Your task to perform on an android device: Go to accessibility settings Image 0: 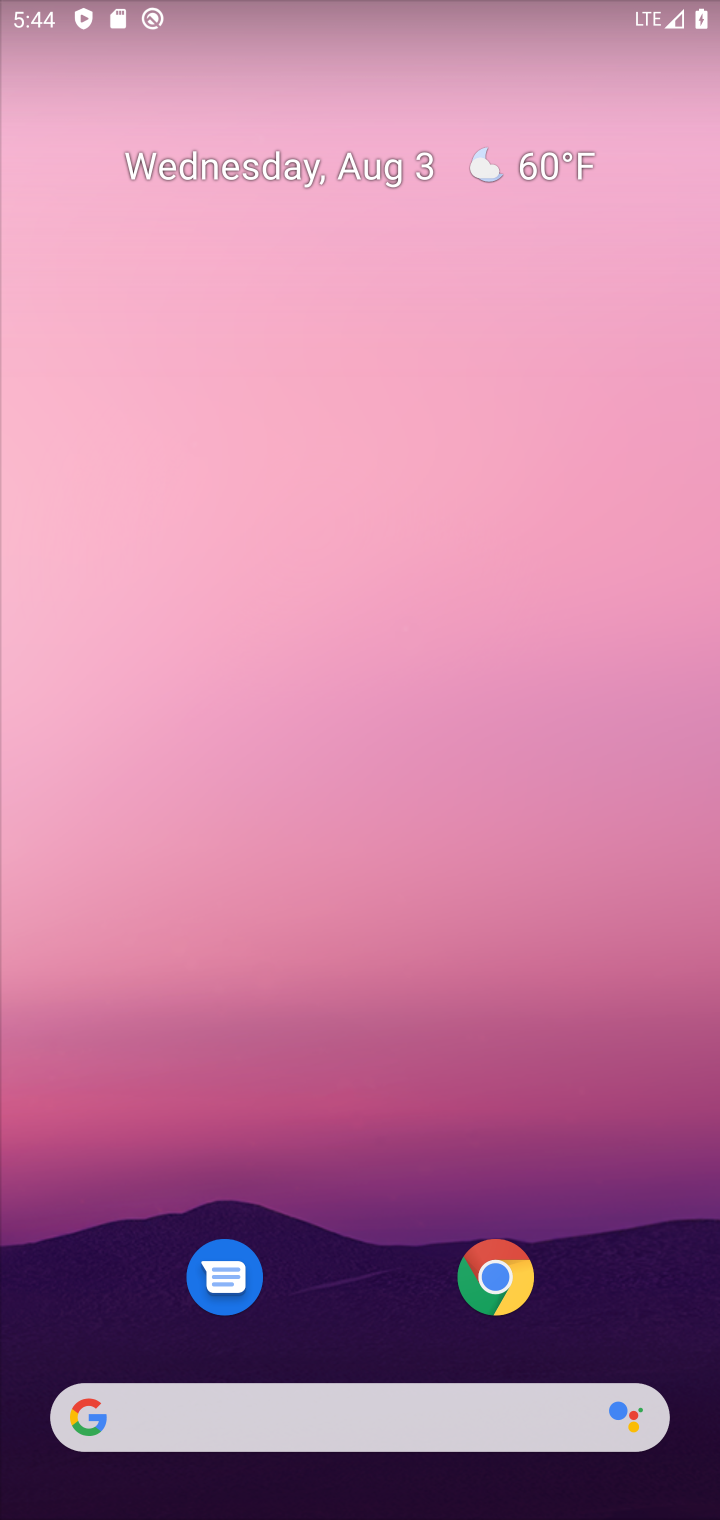
Step 0: drag from (379, 812) to (484, 86)
Your task to perform on an android device: Go to accessibility settings Image 1: 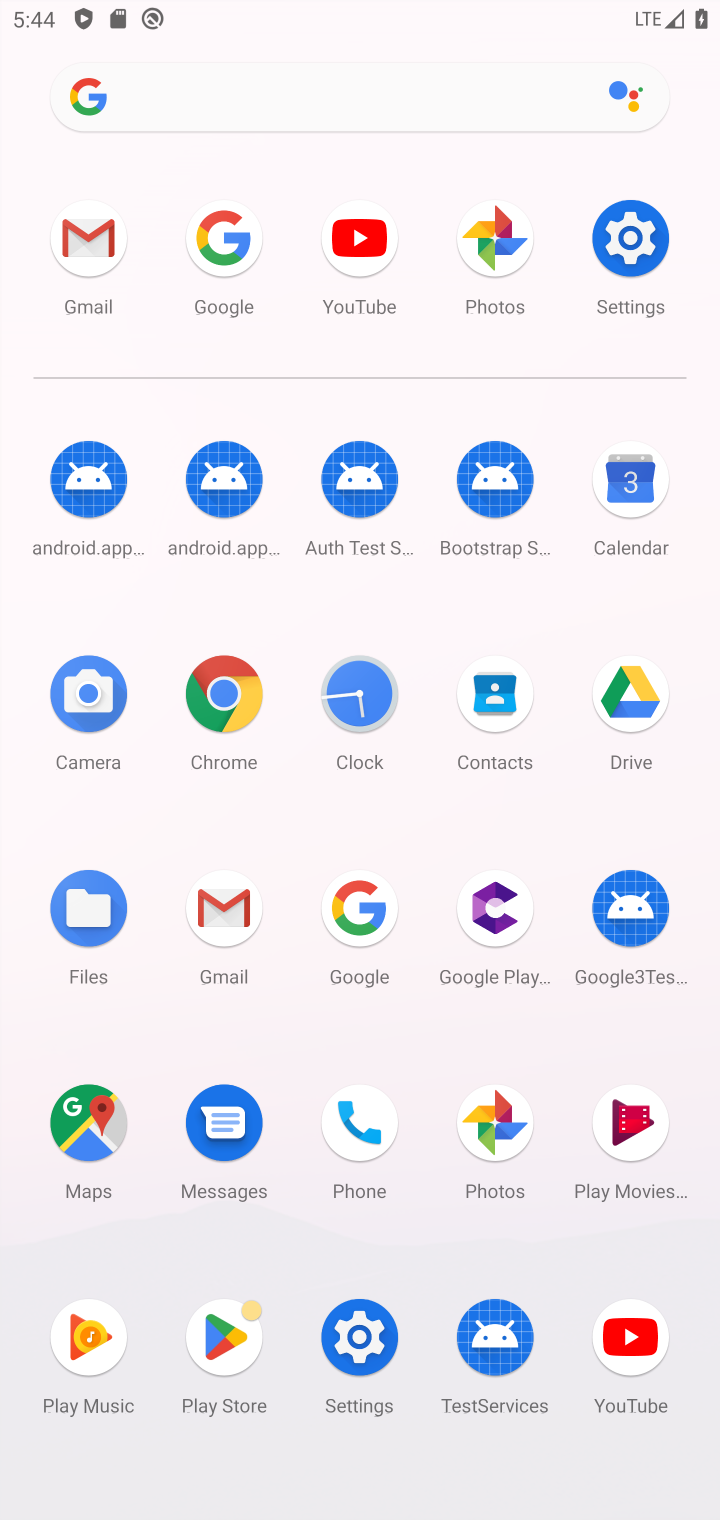
Step 1: click (621, 238)
Your task to perform on an android device: Go to accessibility settings Image 2: 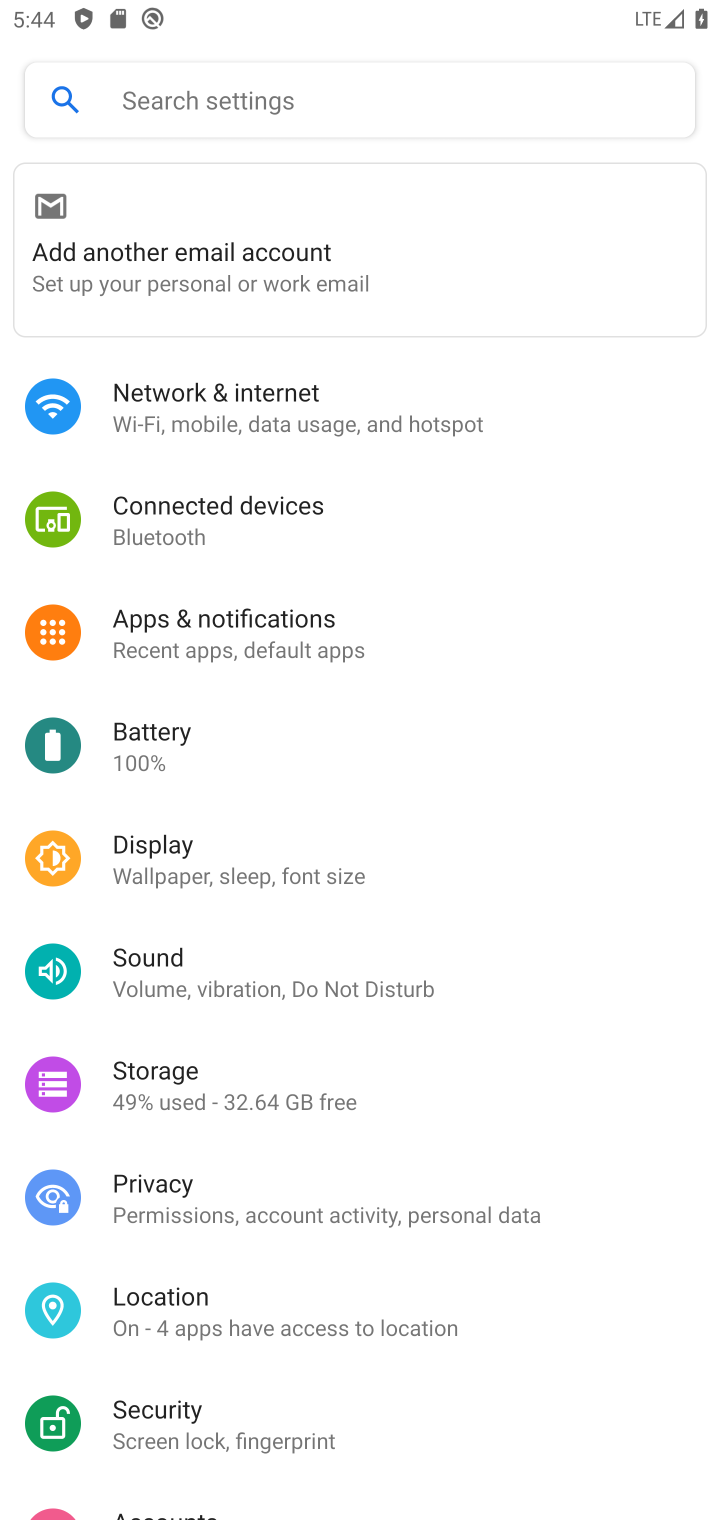
Step 2: drag from (226, 1418) to (553, 33)
Your task to perform on an android device: Go to accessibility settings Image 3: 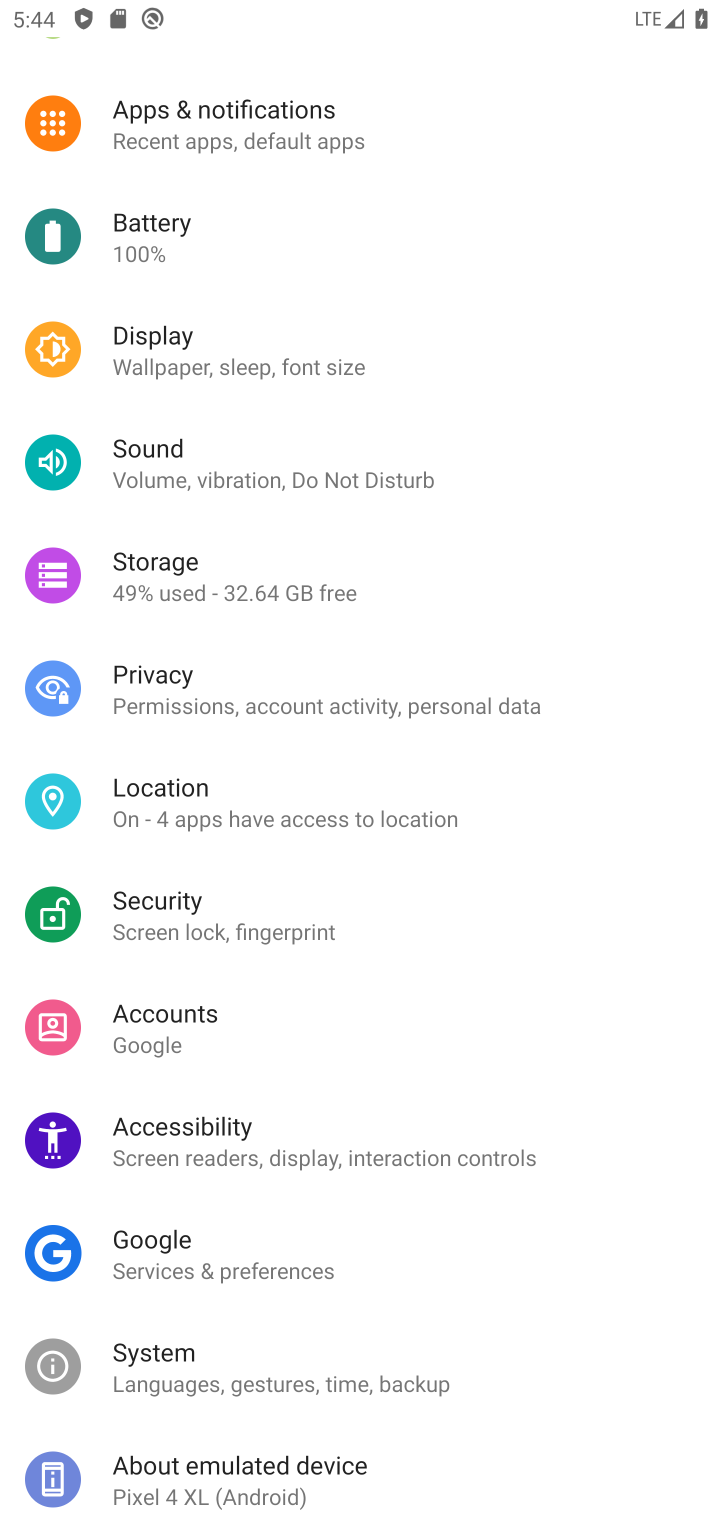
Step 3: click (265, 1117)
Your task to perform on an android device: Go to accessibility settings Image 4: 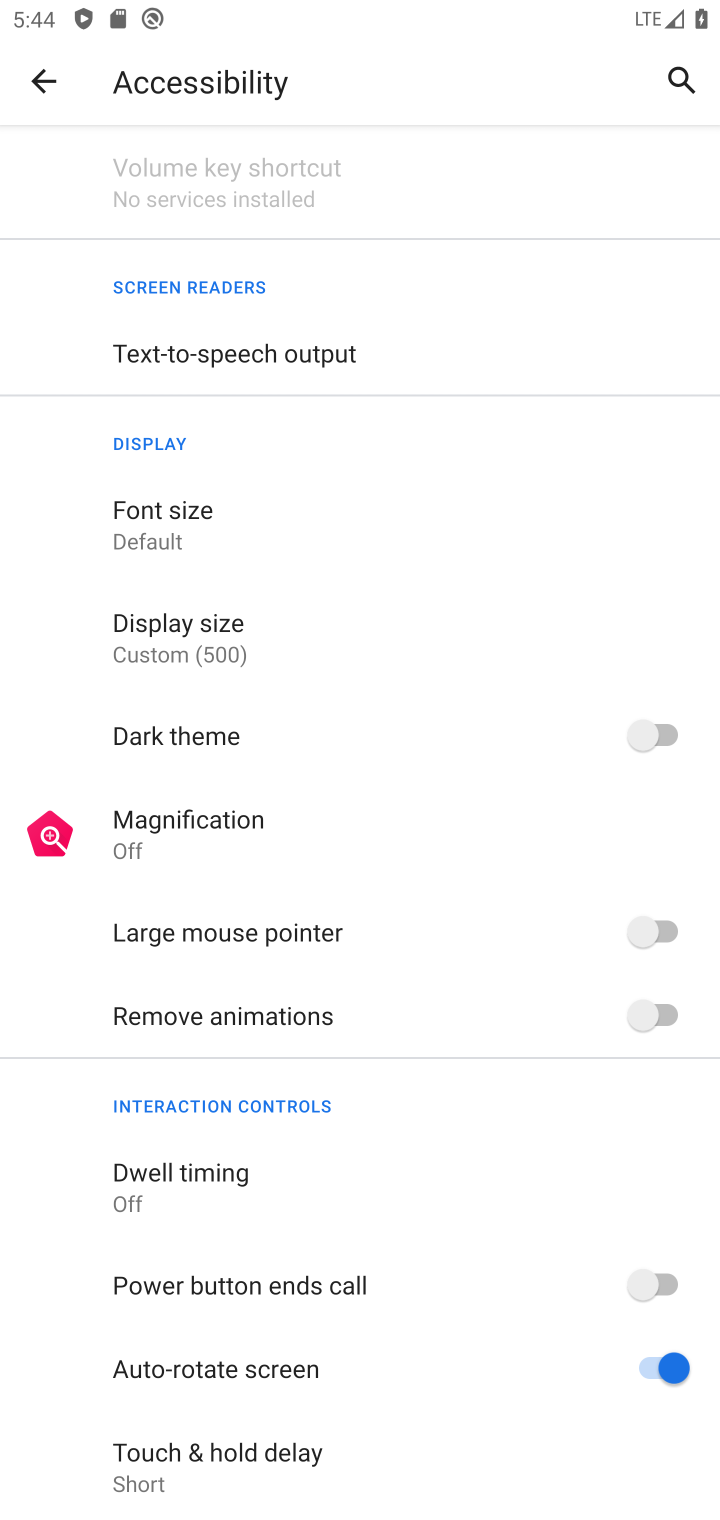
Step 4: task complete